Your task to perform on an android device: Open ESPN.com Image 0: 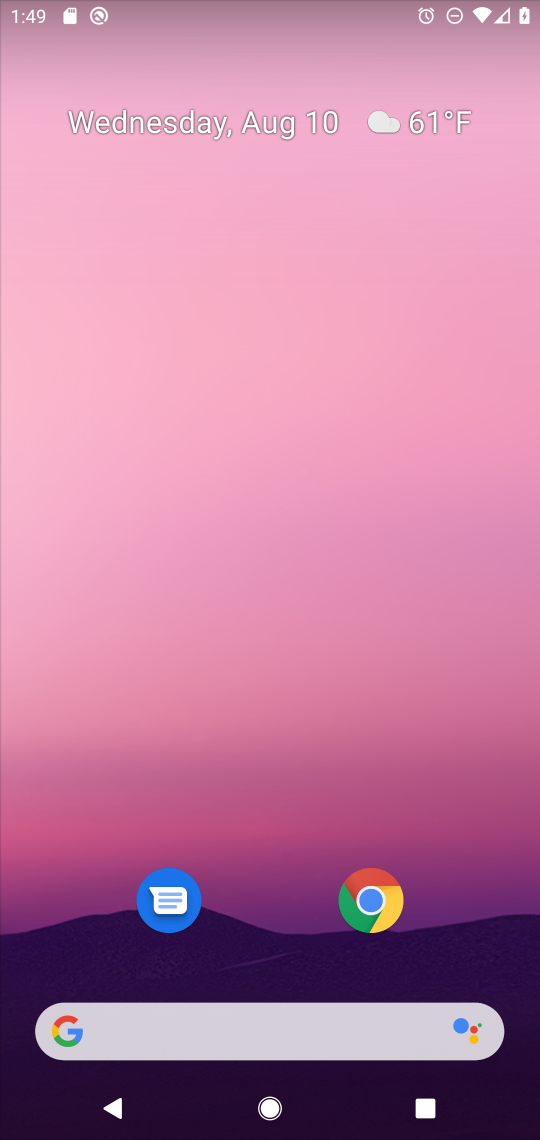
Step 0: click (245, 1039)
Your task to perform on an android device: Open ESPN.com Image 1: 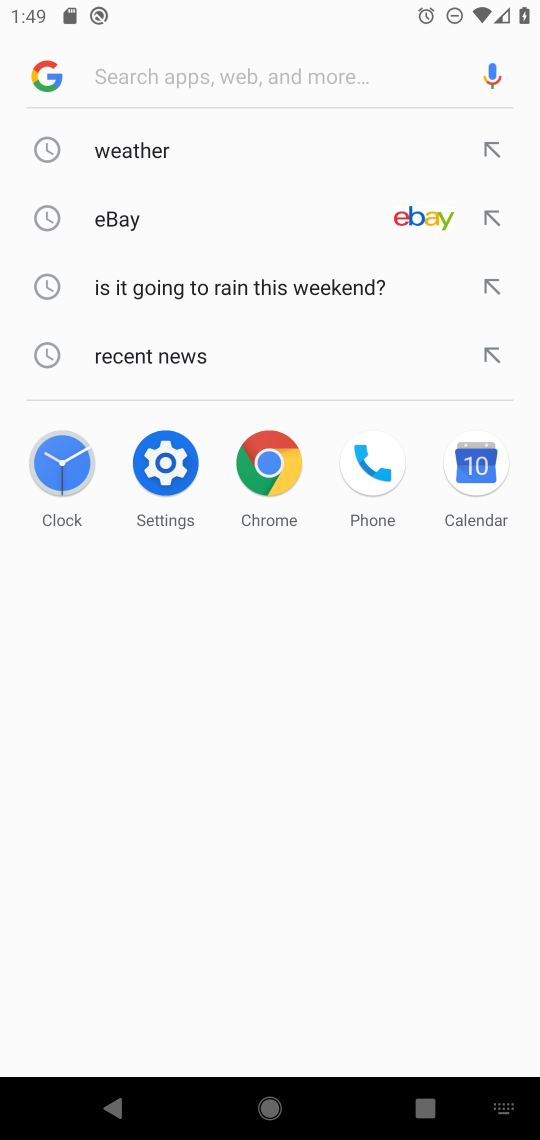
Step 1: type "espn.com"
Your task to perform on an android device: Open ESPN.com Image 2: 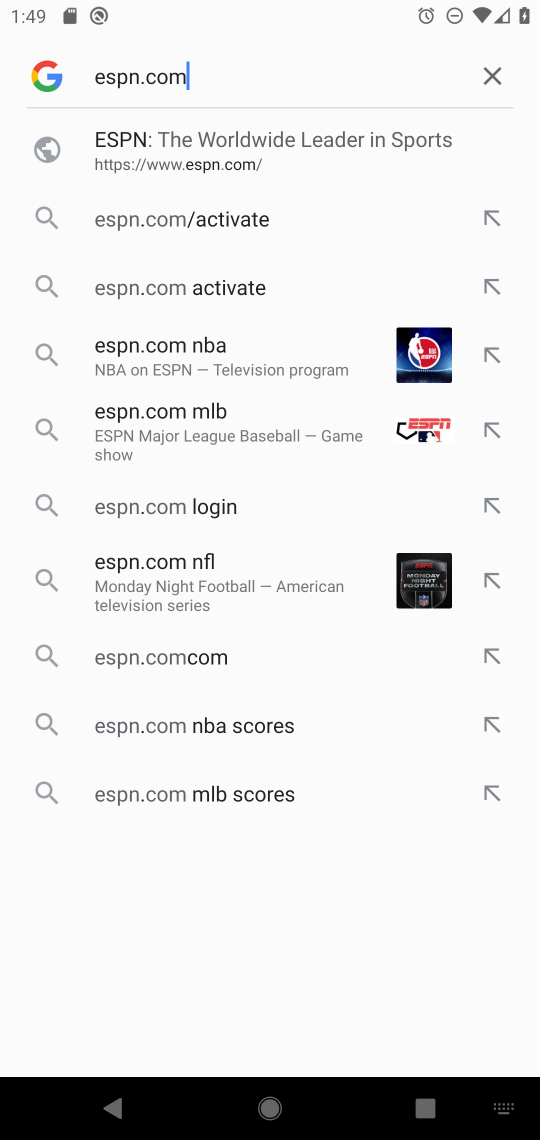
Step 2: click (285, 155)
Your task to perform on an android device: Open ESPN.com Image 3: 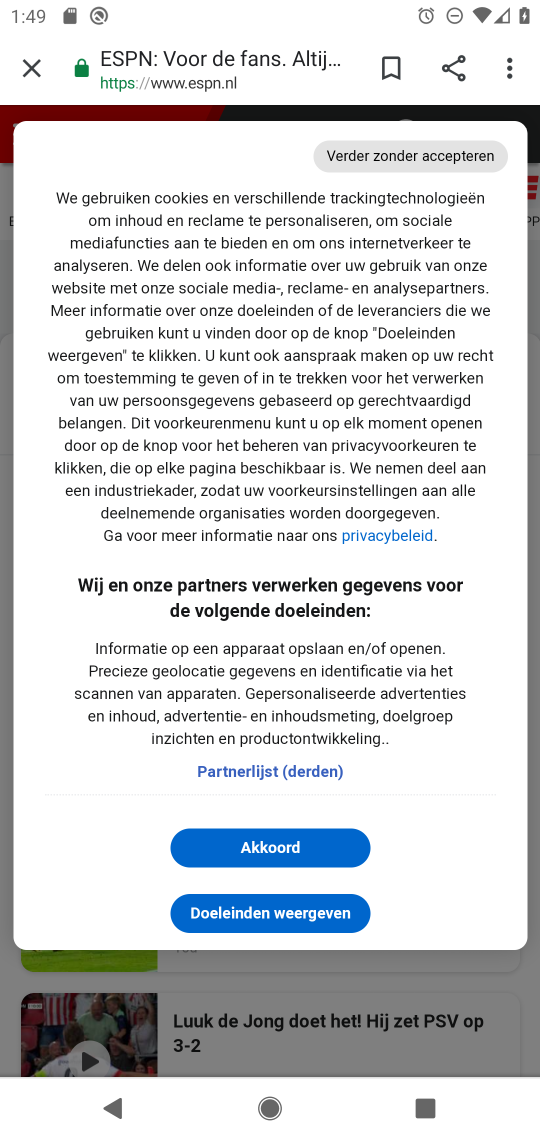
Step 3: click (315, 845)
Your task to perform on an android device: Open ESPN.com Image 4: 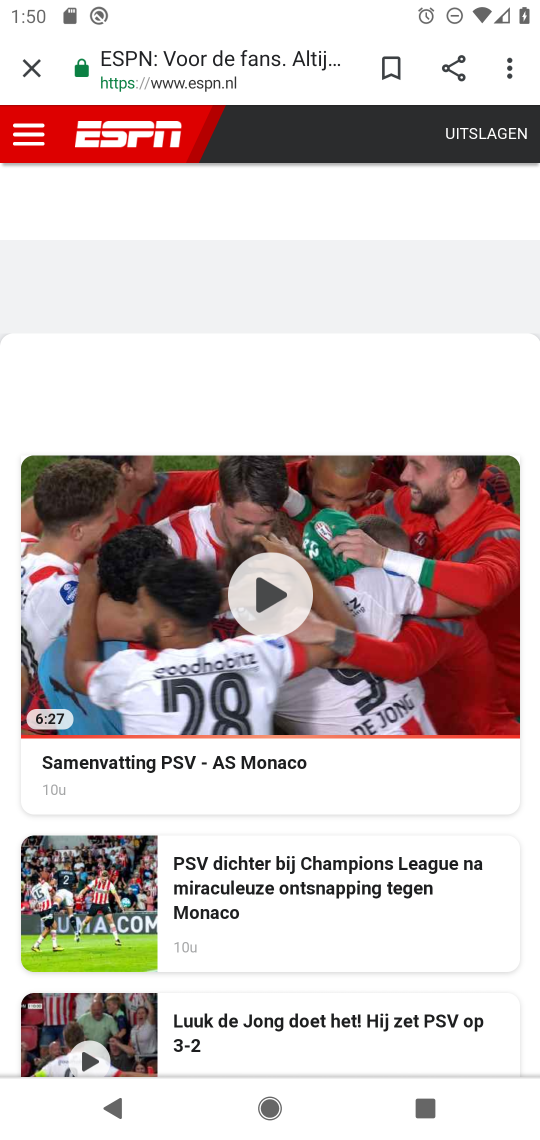
Step 4: click (263, 579)
Your task to perform on an android device: Open ESPN.com Image 5: 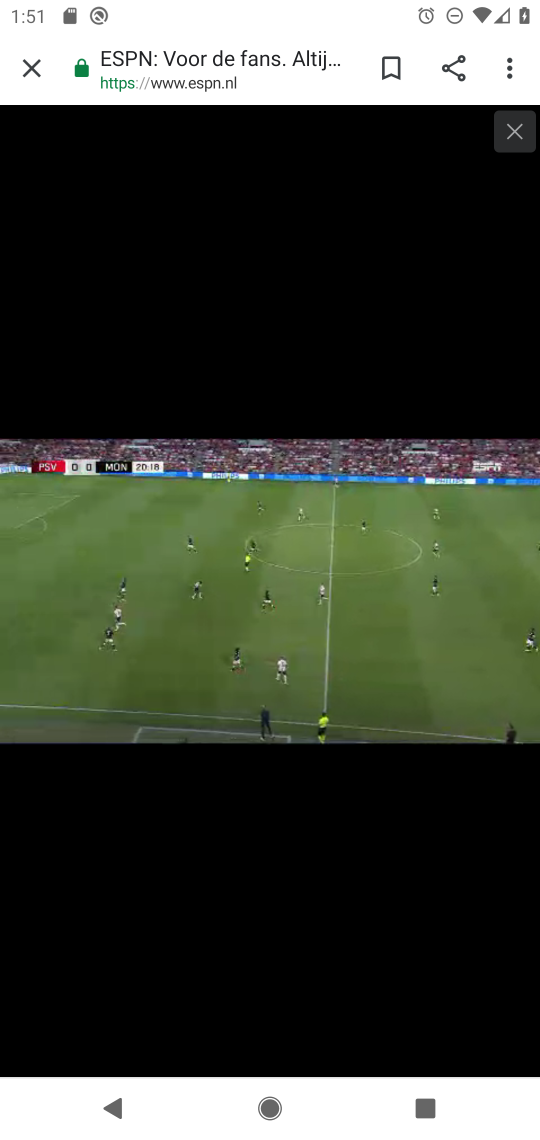
Step 5: task complete